Your task to perform on an android device: Open eBay Image 0: 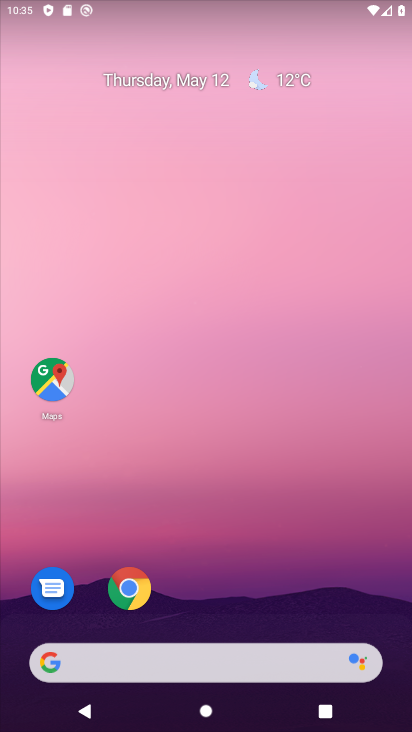
Step 0: click (129, 588)
Your task to perform on an android device: Open eBay Image 1: 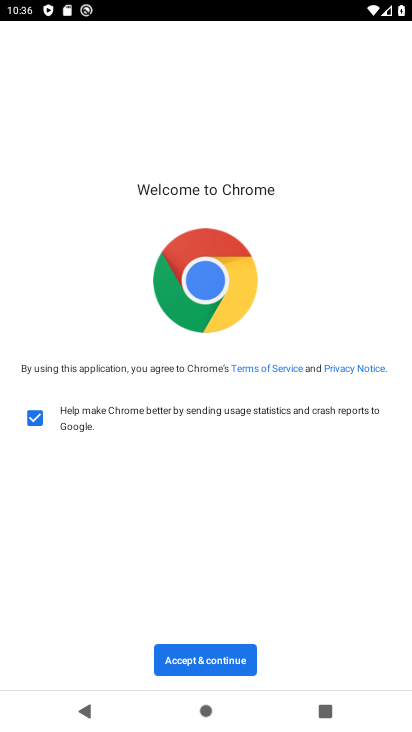
Step 1: click (210, 663)
Your task to perform on an android device: Open eBay Image 2: 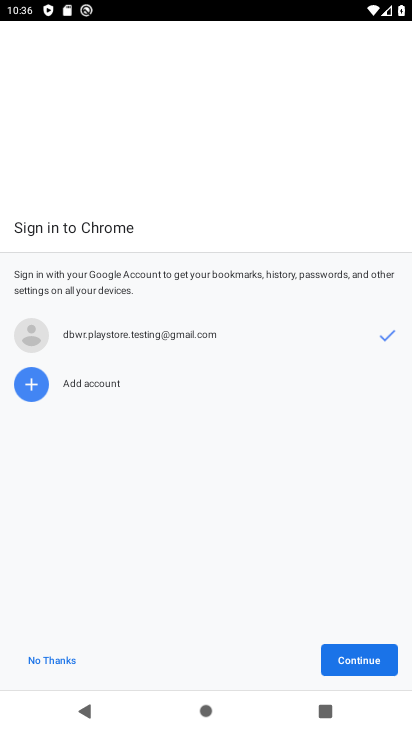
Step 2: click (353, 657)
Your task to perform on an android device: Open eBay Image 3: 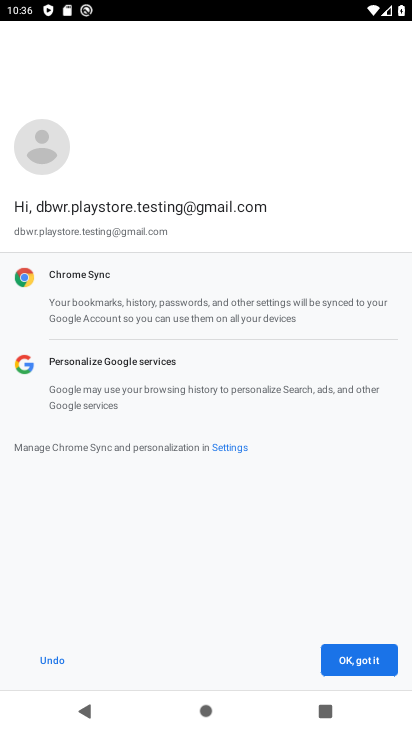
Step 3: click (351, 656)
Your task to perform on an android device: Open eBay Image 4: 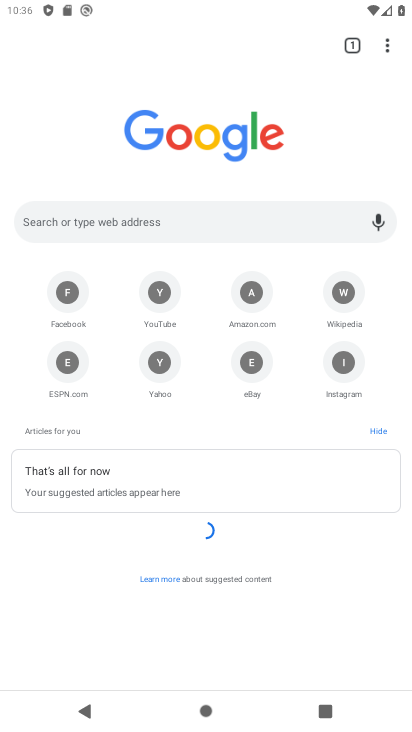
Step 4: click (175, 218)
Your task to perform on an android device: Open eBay Image 5: 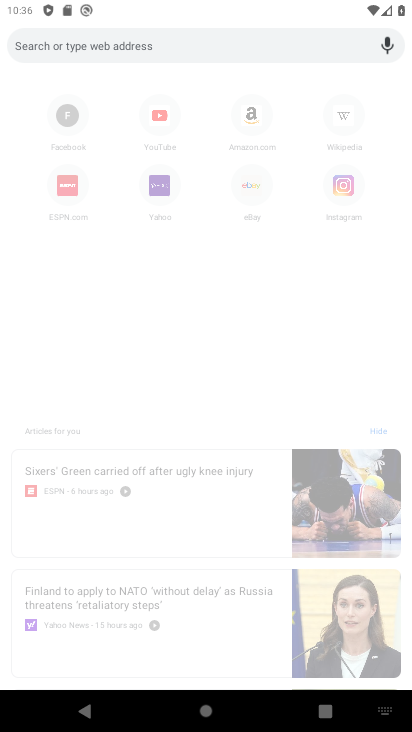
Step 5: type "eBay"
Your task to perform on an android device: Open eBay Image 6: 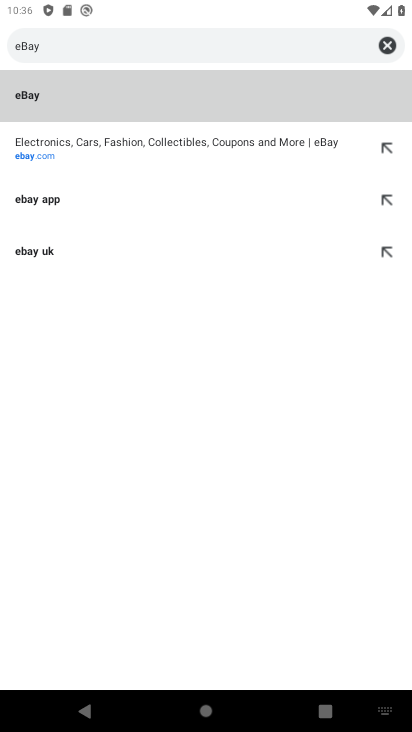
Step 6: click (145, 98)
Your task to perform on an android device: Open eBay Image 7: 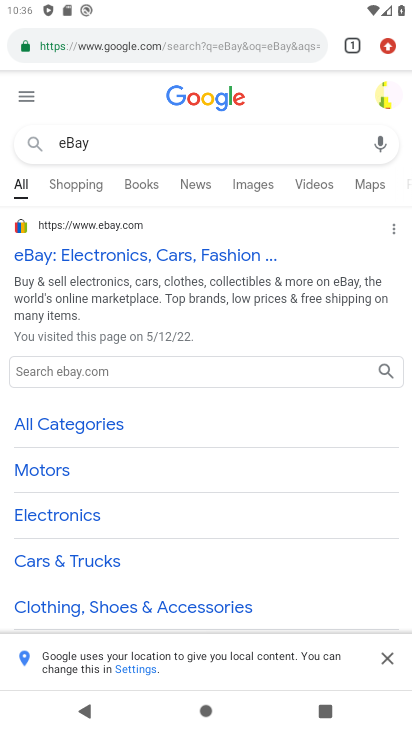
Step 7: click (123, 254)
Your task to perform on an android device: Open eBay Image 8: 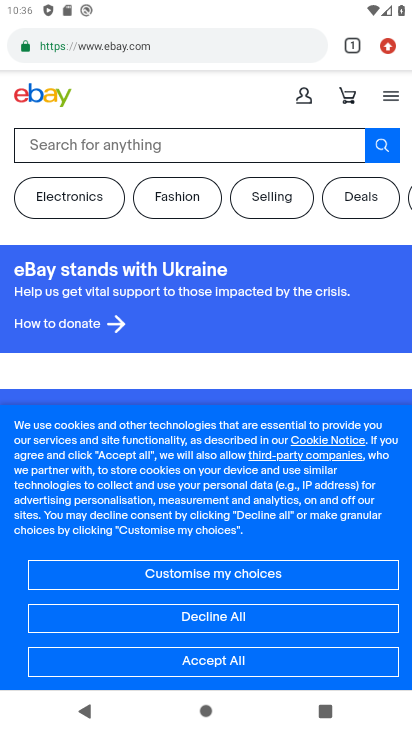
Step 8: task complete